Your task to perform on an android device: turn pop-ups on in chrome Image 0: 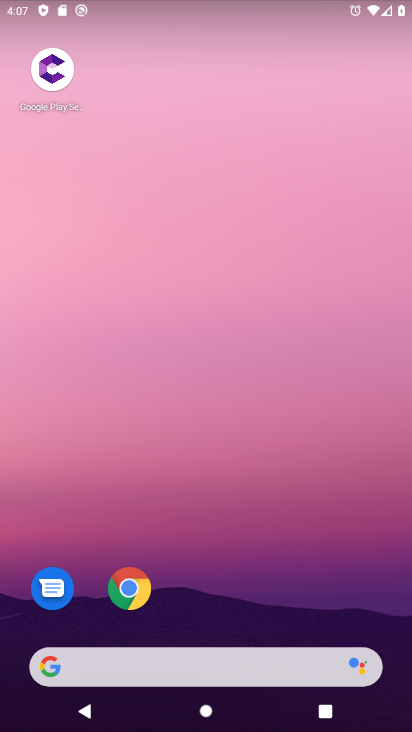
Step 0: click (129, 589)
Your task to perform on an android device: turn pop-ups on in chrome Image 1: 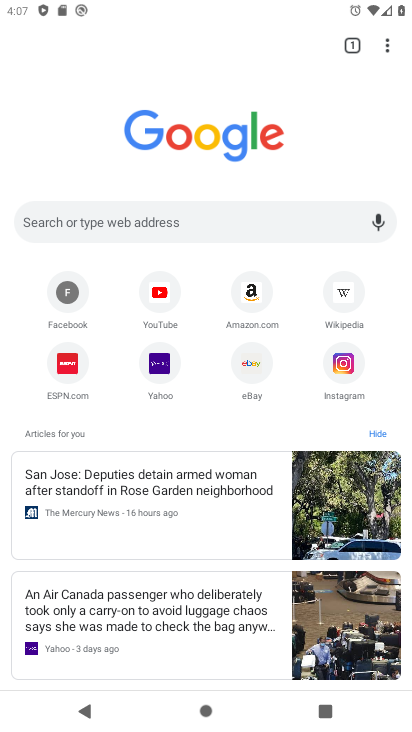
Step 1: click (389, 49)
Your task to perform on an android device: turn pop-ups on in chrome Image 2: 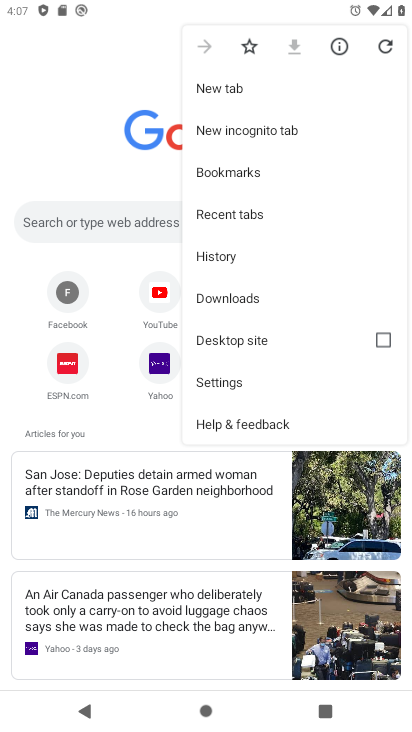
Step 2: click (232, 387)
Your task to perform on an android device: turn pop-ups on in chrome Image 3: 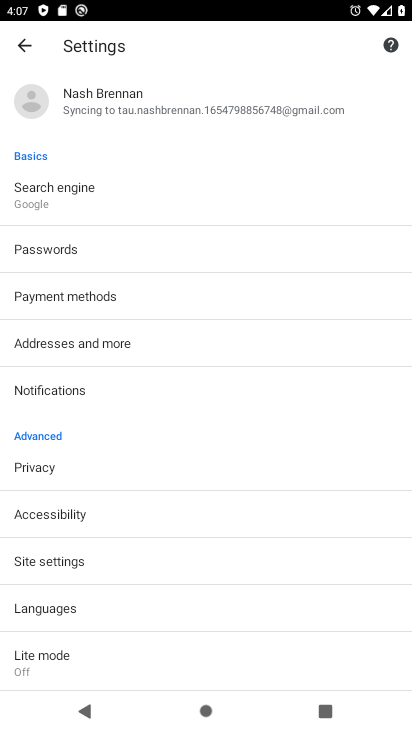
Step 3: click (62, 559)
Your task to perform on an android device: turn pop-ups on in chrome Image 4: 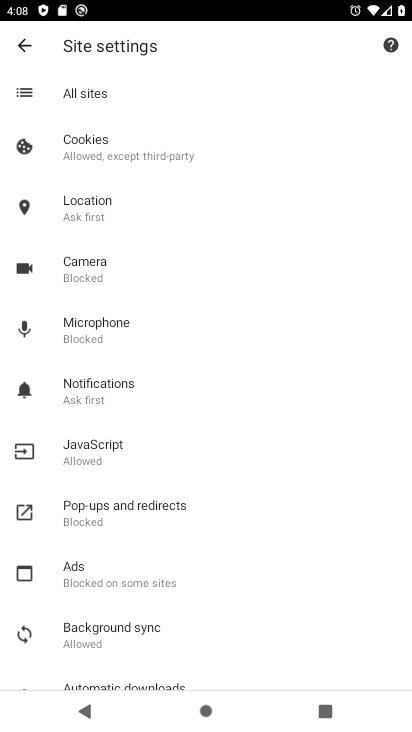
Step 4: click (105, 503)
Your task to perform on an android device: turn pop-ups on in chrome Image 5: 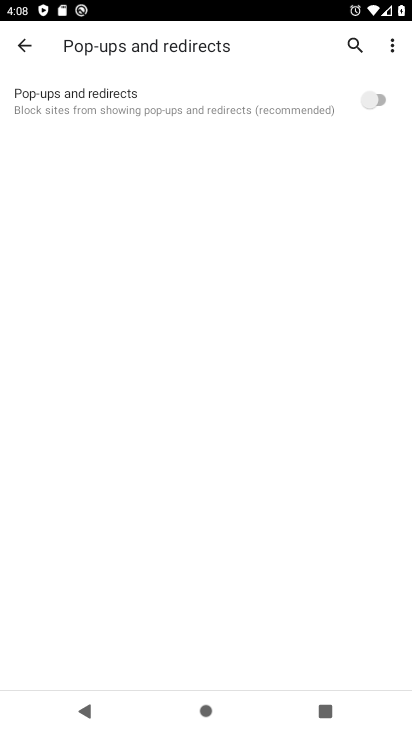
Step 5: click (370, 97)
Your task to perform on an android device: turn pop-ups on in chrome Image 6: 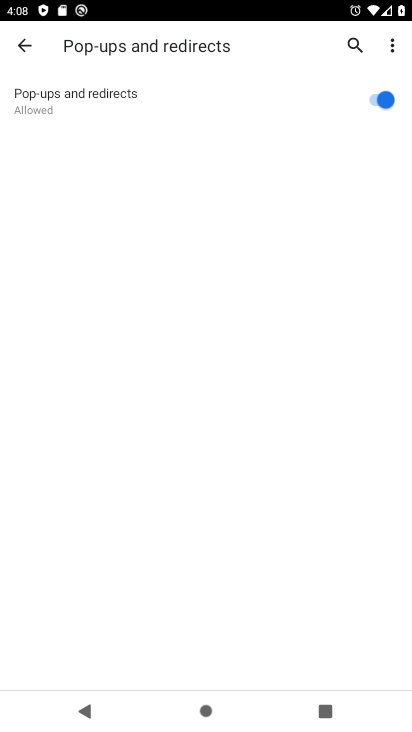
Step 6: task complete